Your task to perform on an android device: open a bookmark in the chrome app Image 0: 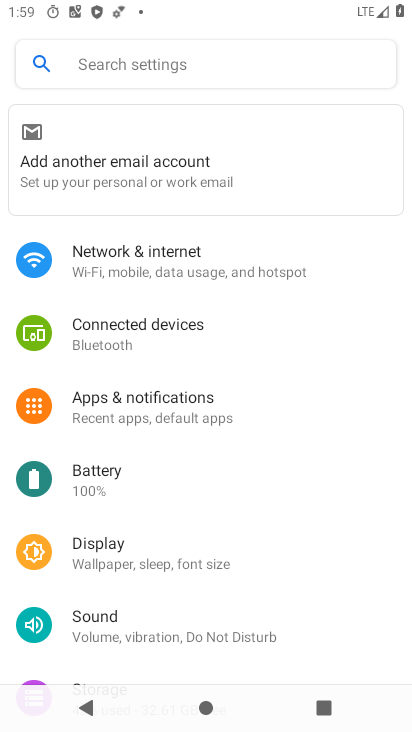
Step 0: press home button
Your task to perform on an android device: open a bookmark in the chrome app Image 1: 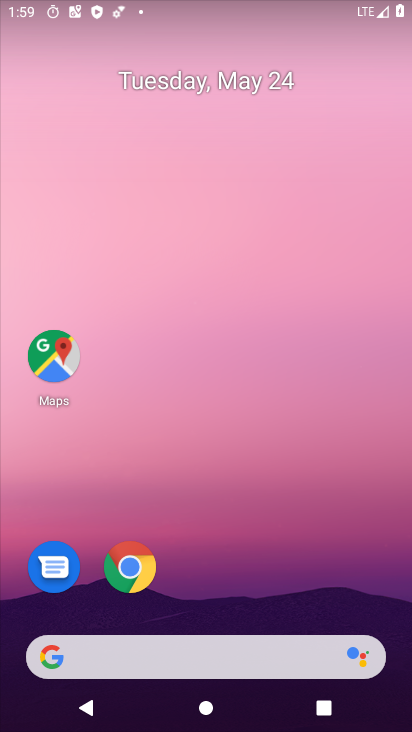
Step 1: click (123, 579)
Your task to perform on an android device: open a bookmark in the chrome app Image 2: 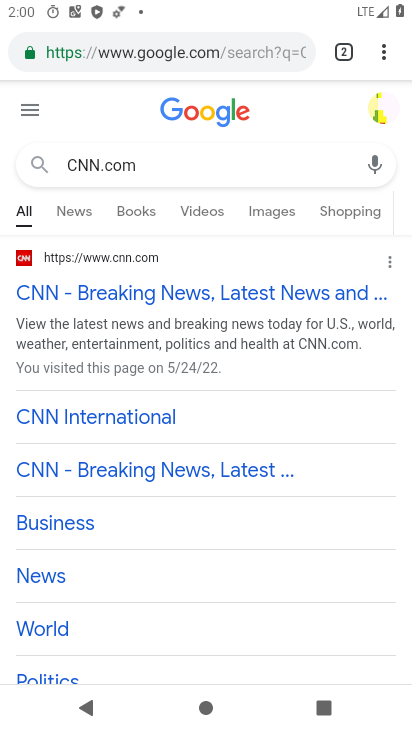
Step 2: click (380, 35)
Your task to perform on an android device: open a bookmark in the chrome app Image 3: 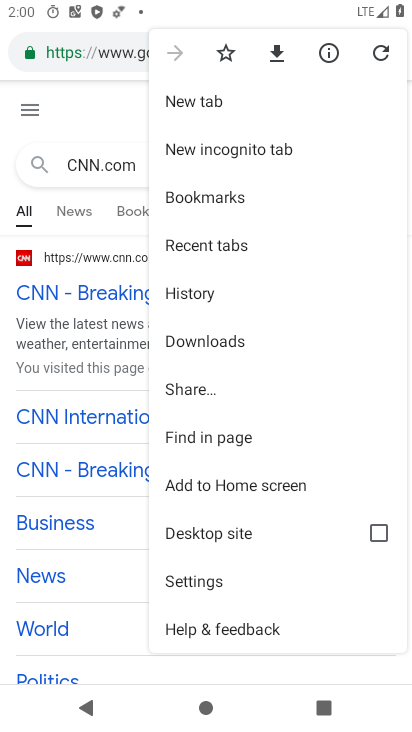
Step 3: click (183, 200)
Your task to perform on an android device: open a bookmark in the chrome app Image 4: 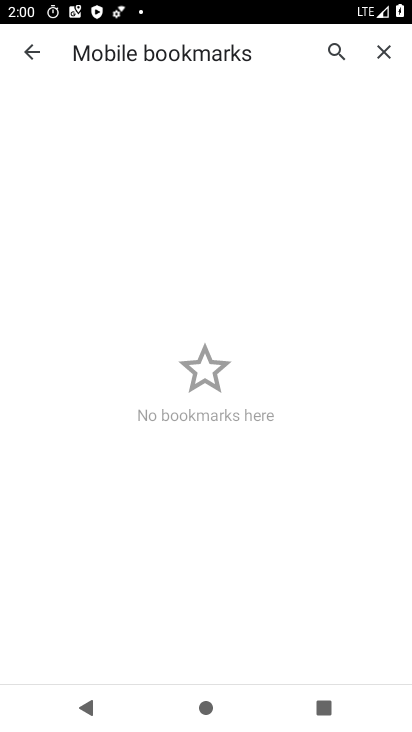
Step 4: task complete